Your task to perform on an android device: Search for Italian restaurants on Maps Image 0: 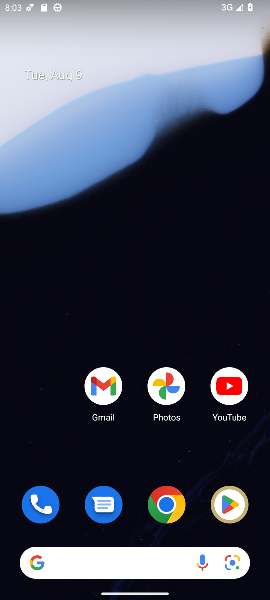
Step 0: drag from (218, 428) to (196, 9)
Your task to perform on an android device: Search for Italian restaurants on Maps Image 1: 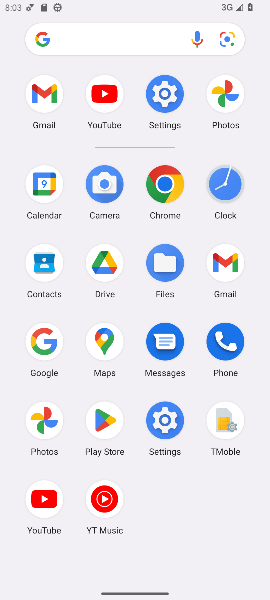
Step 1: click (106, 360)
Your task to perform on an android device: Search for Italian restaurants on Maps Image 2: 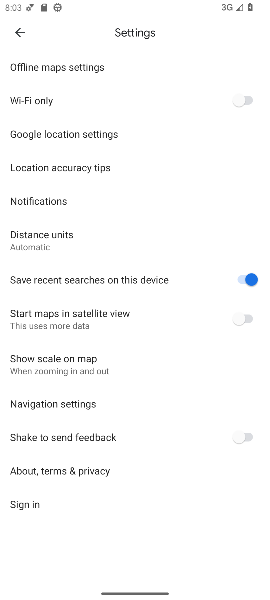
Step 2: click (18, 28)
Your task to perform on an android device: Search for Italian restaurants on Maps Image 3: 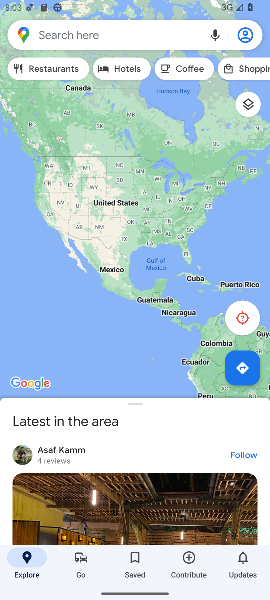
Step 3: click (128, 36)
Your task to perform on an android device: Search for Italian restaurants on Maps Image 4: 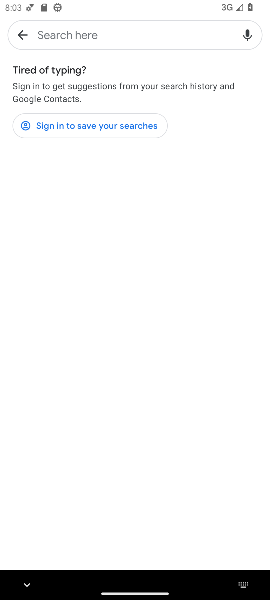
Step 4: type " Italian restaurants"
Your task to perform on an android device: Search for Italian restaurants on Maps Image 5: 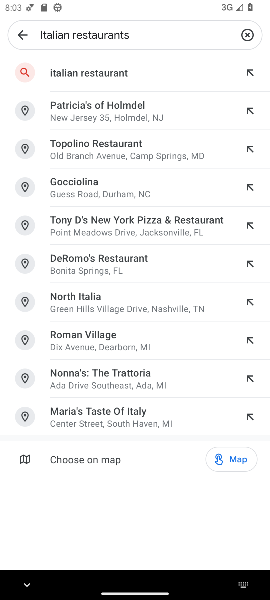
Step 5: click (79, 75)
Your task to perform on an android device: Search for Italian restaurants on Maps Image 6: 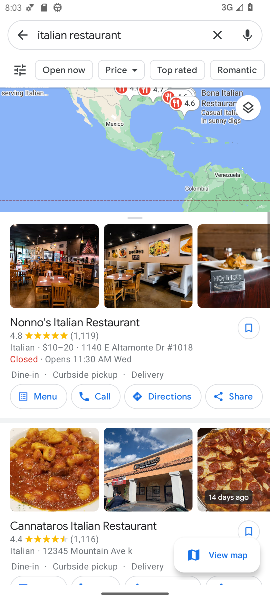
Step 6: task complete